Your task to perform on an android device: Open Reddit.com Image 0: 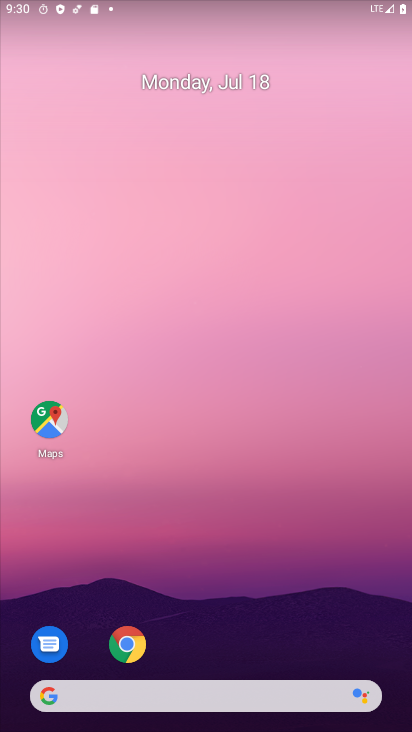
Step 0: press home button
Your task to perform on an android device: Open Reddit.com Image 1: 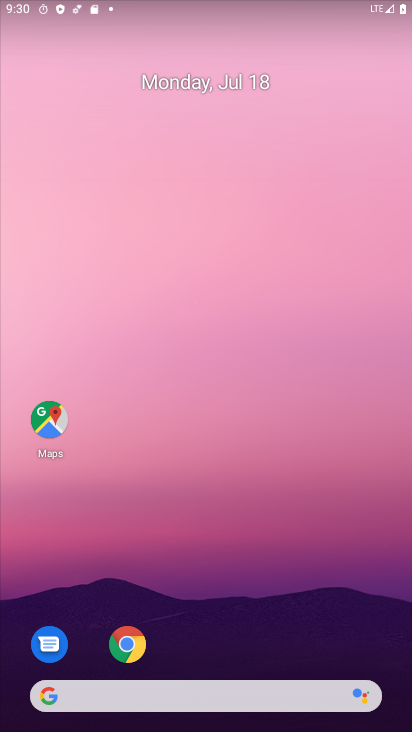
Step 1: click (125, 637)
Your task to perform on an android device: Open Reddit.com Image 2: 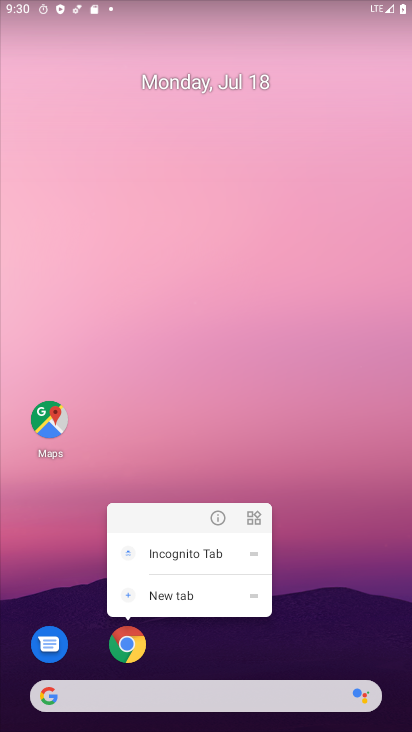
Step 2: click (125, 637)
Your task to perform on an android device: Open Reddit.com Image 3: 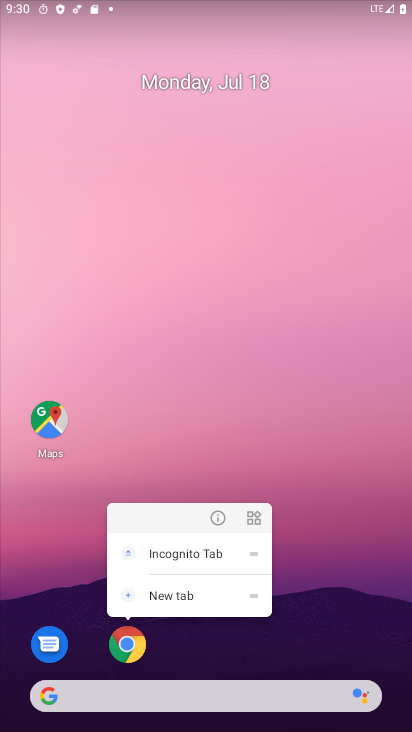
Step 3: click (123, 637)
Your task to perform on an android device: Open Reddit.com Image 4: 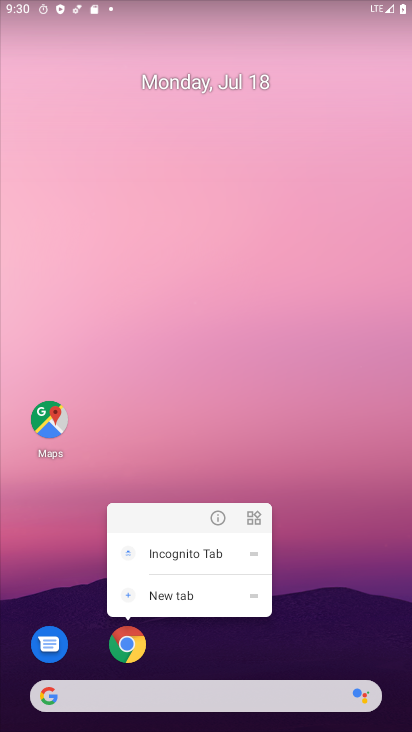
Step 4: click (122, 641)
Your task to perform on an android device: Open Reddit.com Image 5: 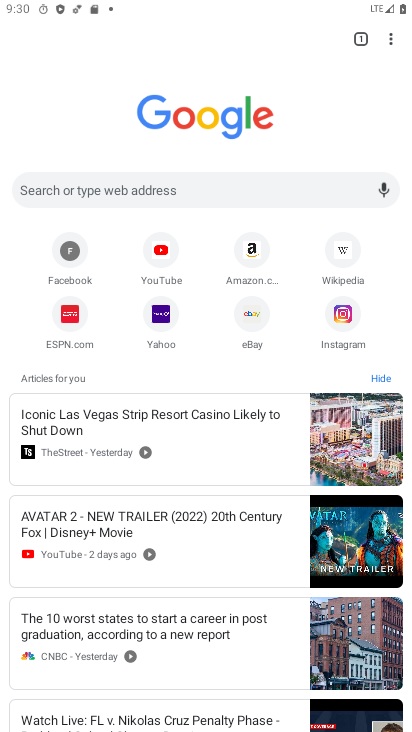
Step 5: click (128, 187)
Your task to perform on an android device: Open Reddit.com Image 6: 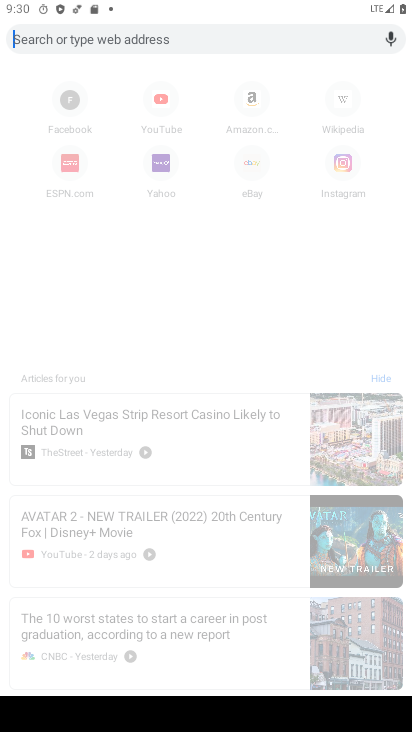
Step 6: type "reddit.com"
Your task to perform on an android device: Open Reddit.com Image 7: 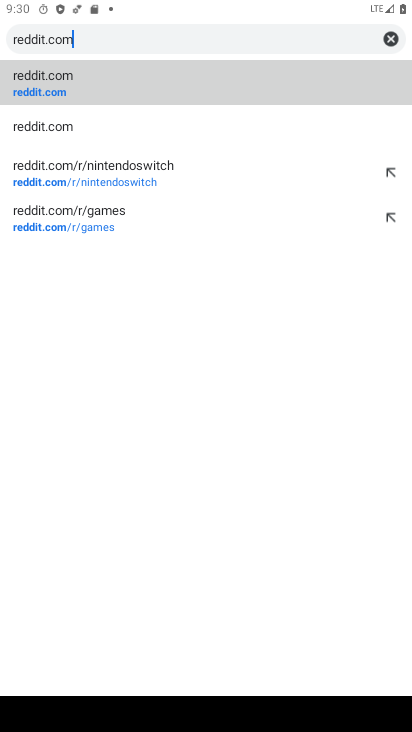
Step 7: click (79, 87)
Your task to perform on an android device: Open Reddit.com Image 8: 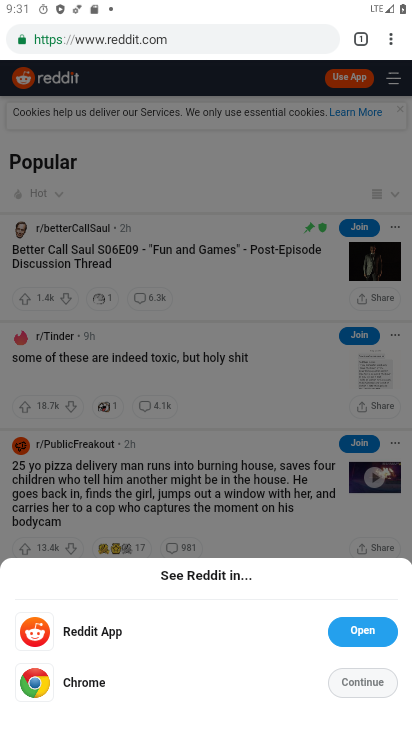
Step 8: click (359, 678)
Your task to perform on an android device: Open Reddit.com Image 9: 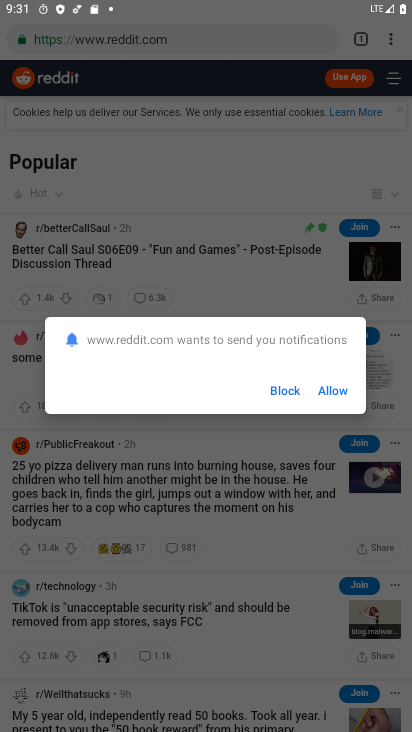
Step 9: click (336, 391)
Your task to perform on an android device: Open Reddit.com Image 10: 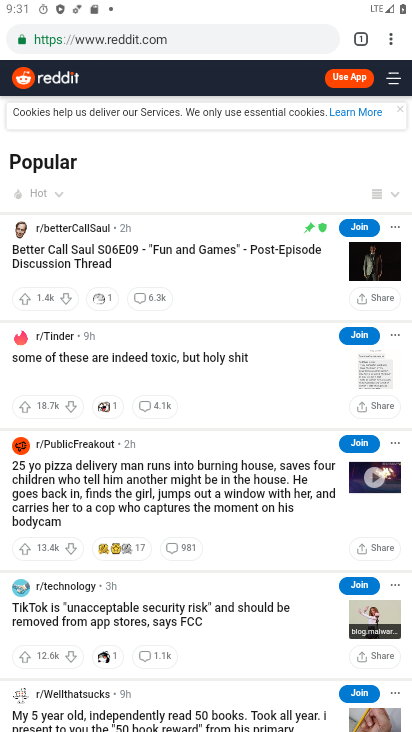
Step 10: task complete